Your task to perform on an android device: Show me popular games on the Play Store Image 0: 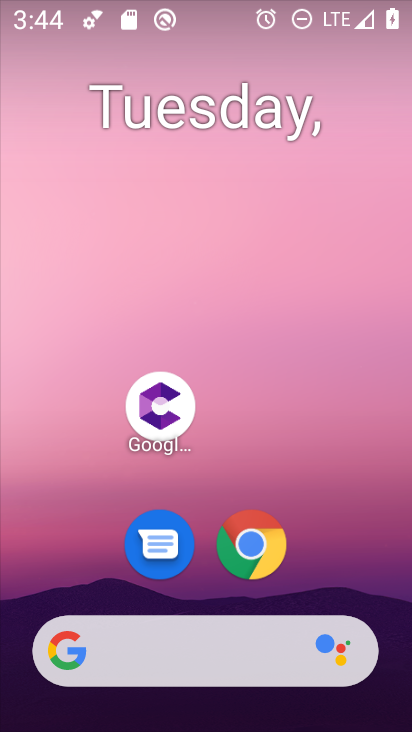
Step 0: drag from (341, 533) to (371, 138)
Your task to perform on an android device: Show me popular games on the Play Store Image 1: 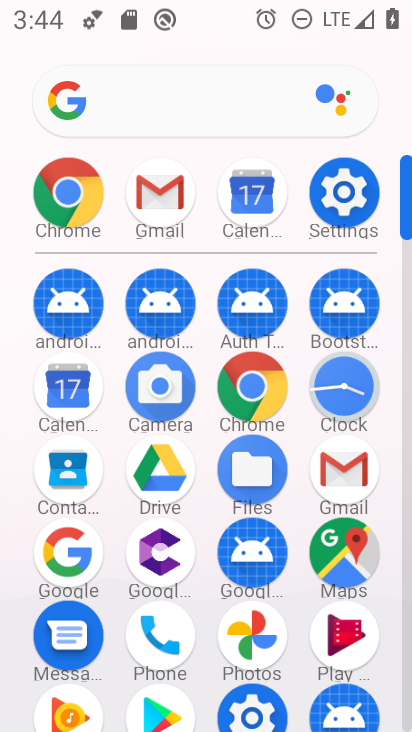
Step 1: drag from (203, 521) to (208, 192)
Your task to perform on an android device: Show me popular games on the Play Store Image 2: 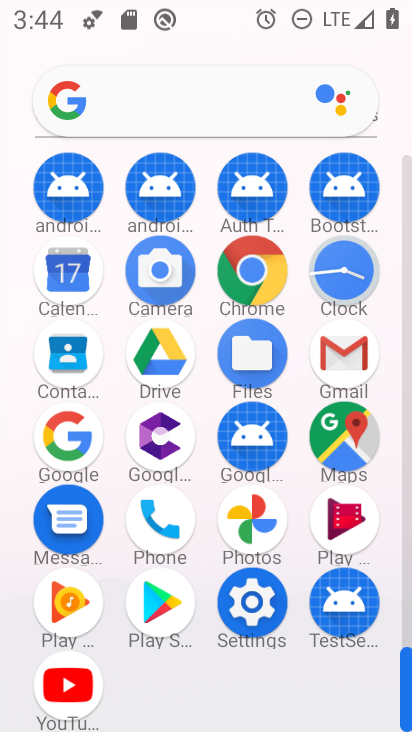
Step 2: click (162, 622)
Your task to perform on an android device: Show me popular games on the Play Store Image 3: 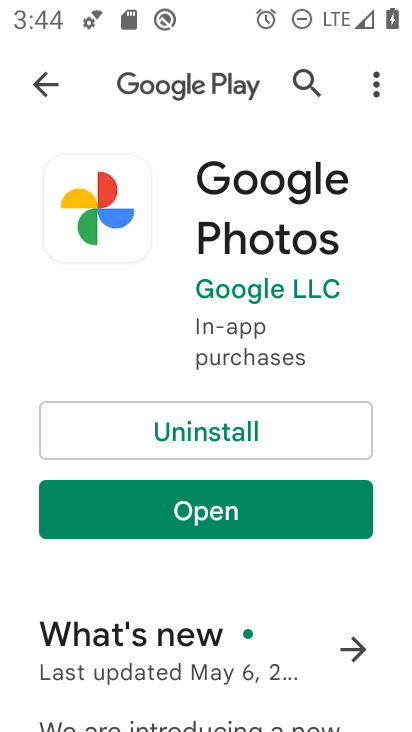
Step 3: click (57, 75)
Your task to perform on an android device: Show me popular games on the Play Store Image 4: 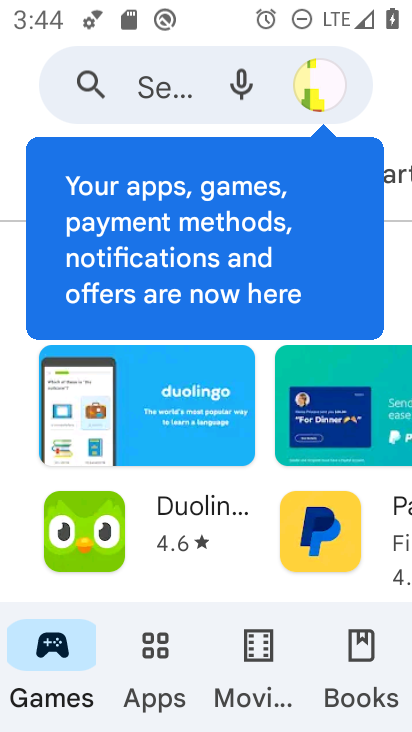
Step 4: task complete